Your task to perform on an android device: check storage Image 0: 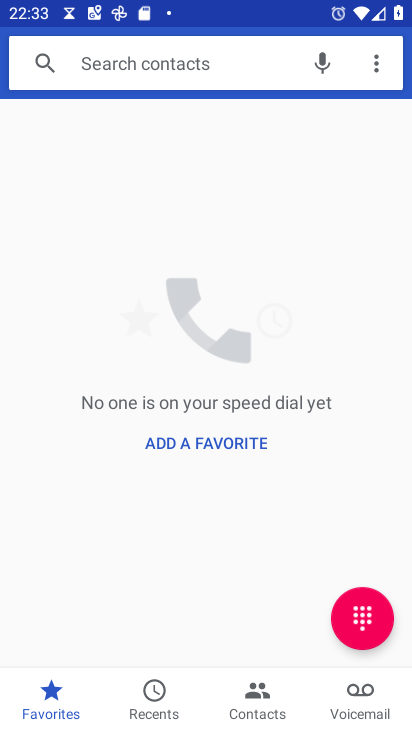
Step 0: press home button
Your task to perform on an android device: check storage Image 1: 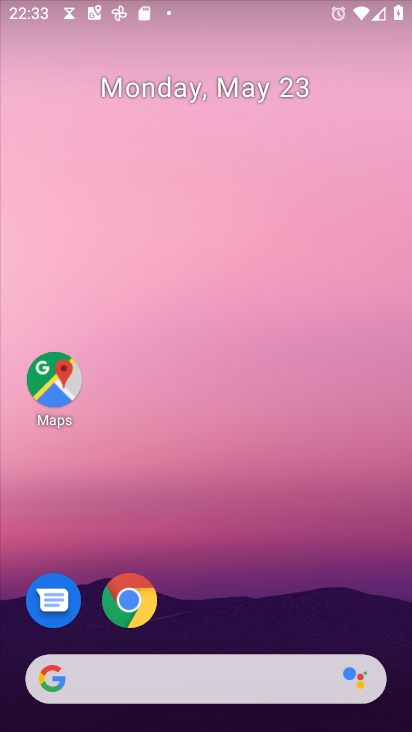
Step 1: drag from (236, 727) to (249, 179)
Your task to perform on an android device: check storage Image 2: 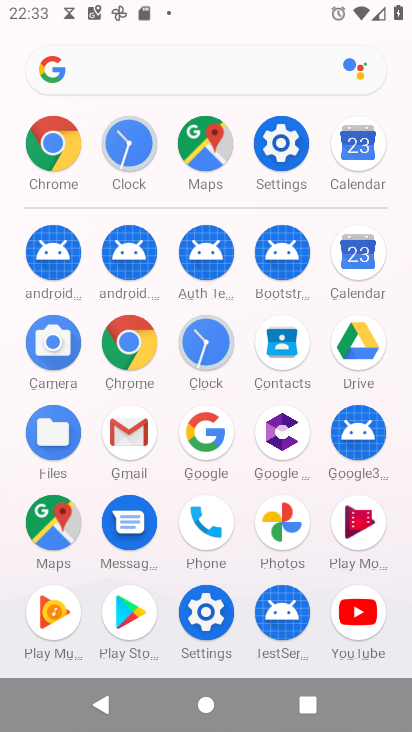
Step 2: click (291, 133)
Your task to perform on an android device: check storage Image 3: 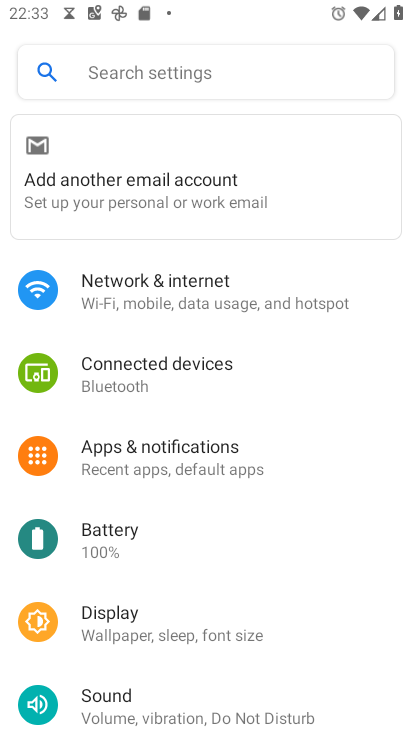
Step 3: drag from (139, 683) to (147, 314)
Your task to perform on an android device: check storage Image 4: 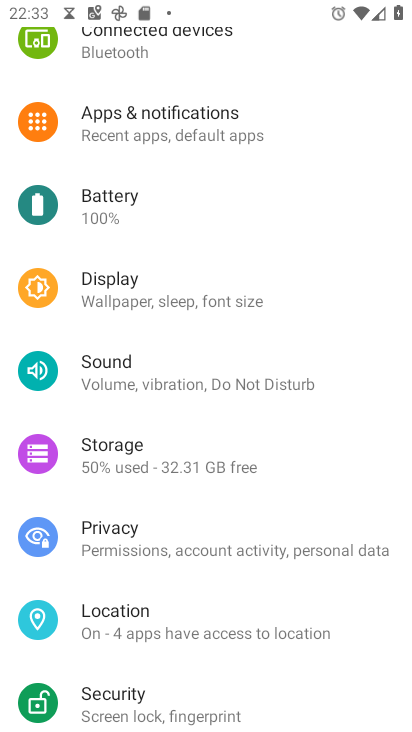
Step 4: click (122, 456)
Your task to perform on an android device: check storage Image 5: 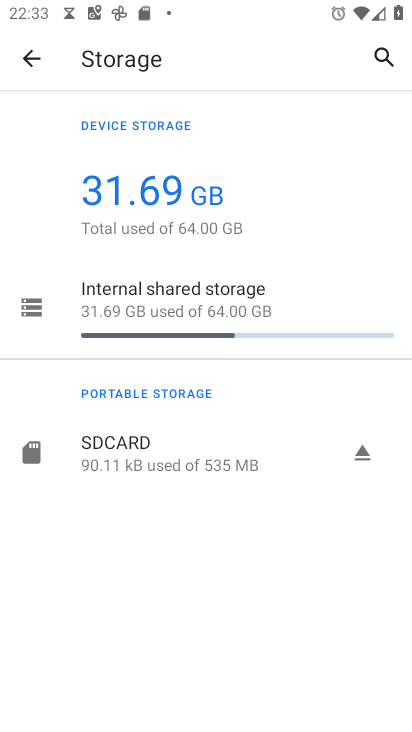
Step 5: task complete